Your task to perform on an android device: Go to privacy settings Image 0: 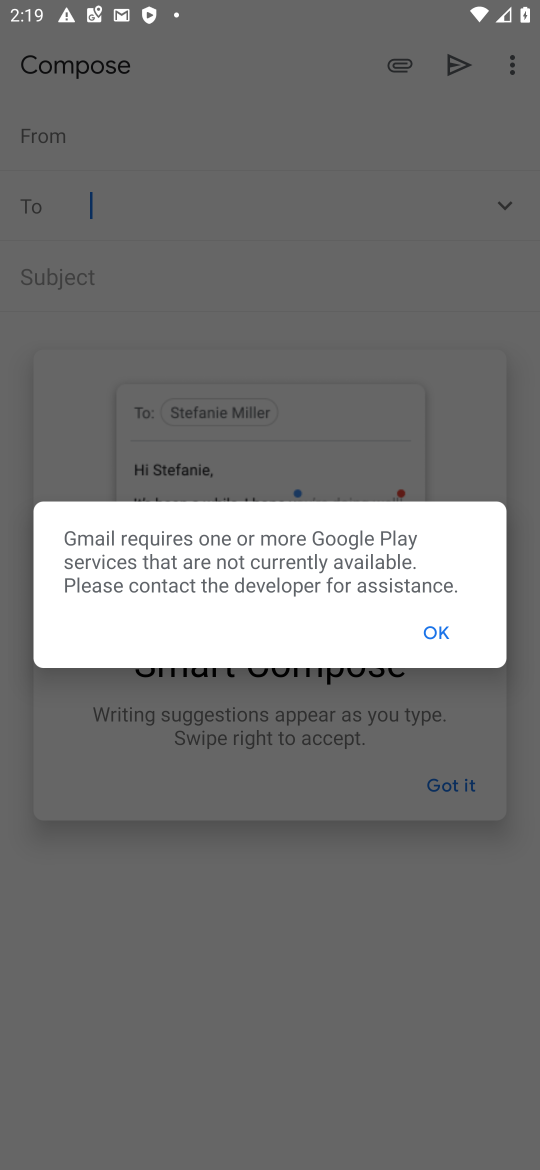
Step 0: click (416, 632)
Your task to perform on an android device: Go to privacy settings Image 1: 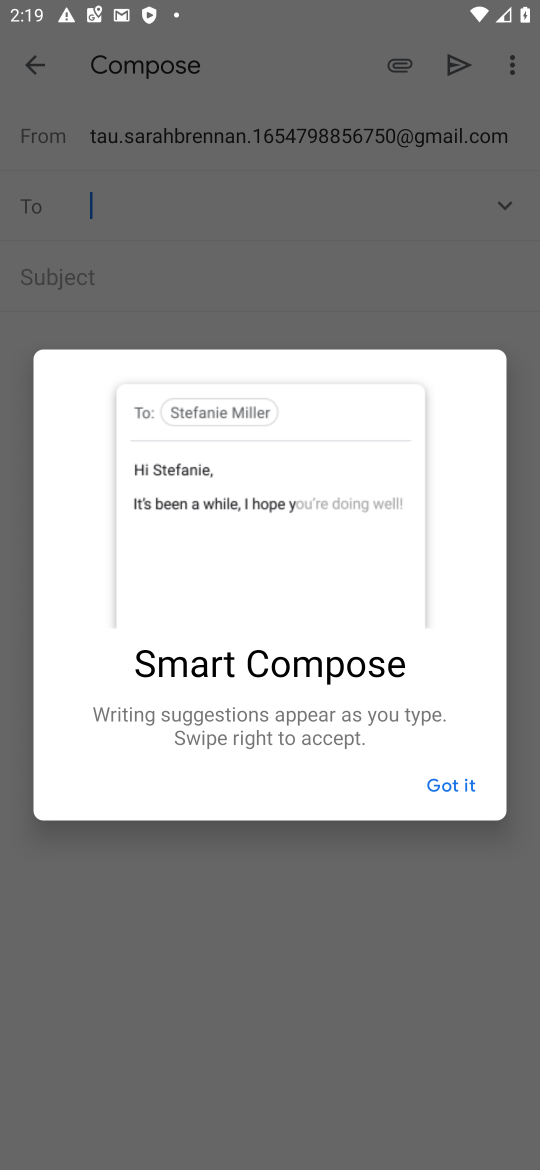
Step 1: press home button
Your task to perform on an android device: Go to privacy settings Image 2: 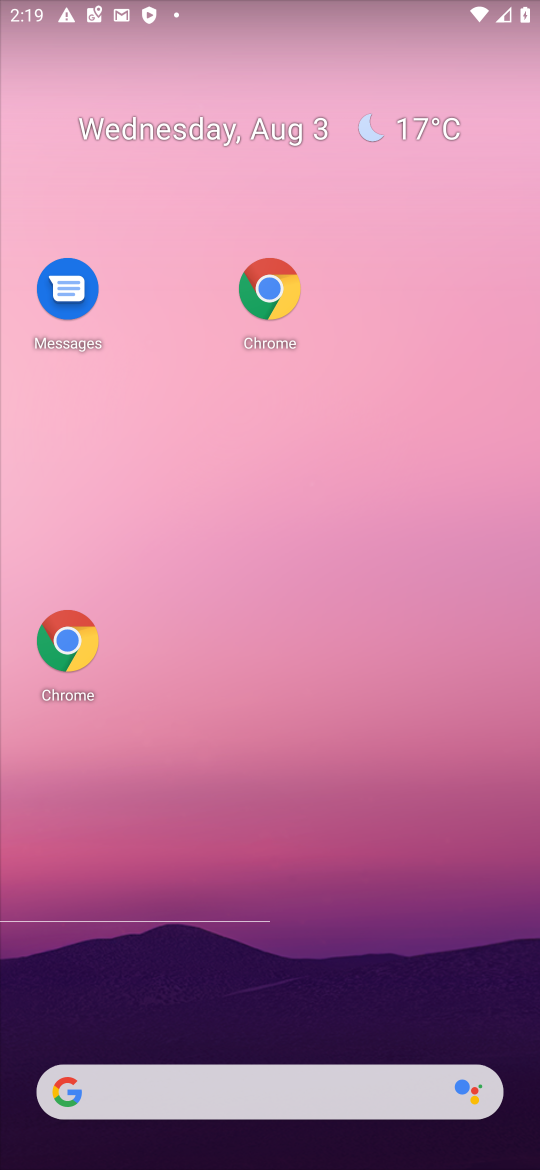
Step 2: drag from (324, 1047) to (315, 96)
Your task to perform on an android device: Go to privacy settings Image 3: 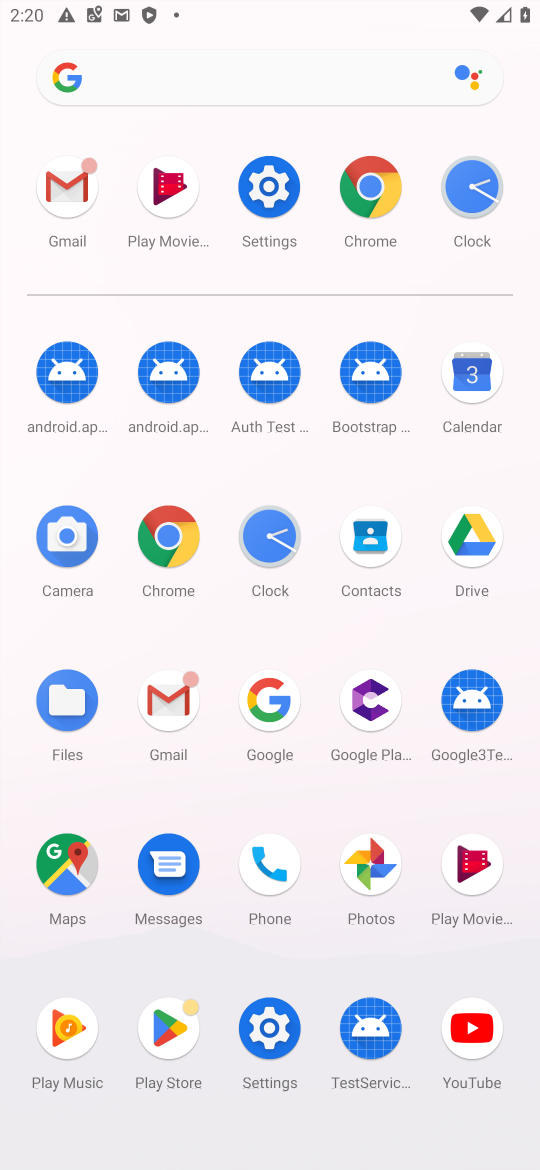
Step 3: click (267, 217)
Your task to perform on an android device: Go to privacy settings Image 4: 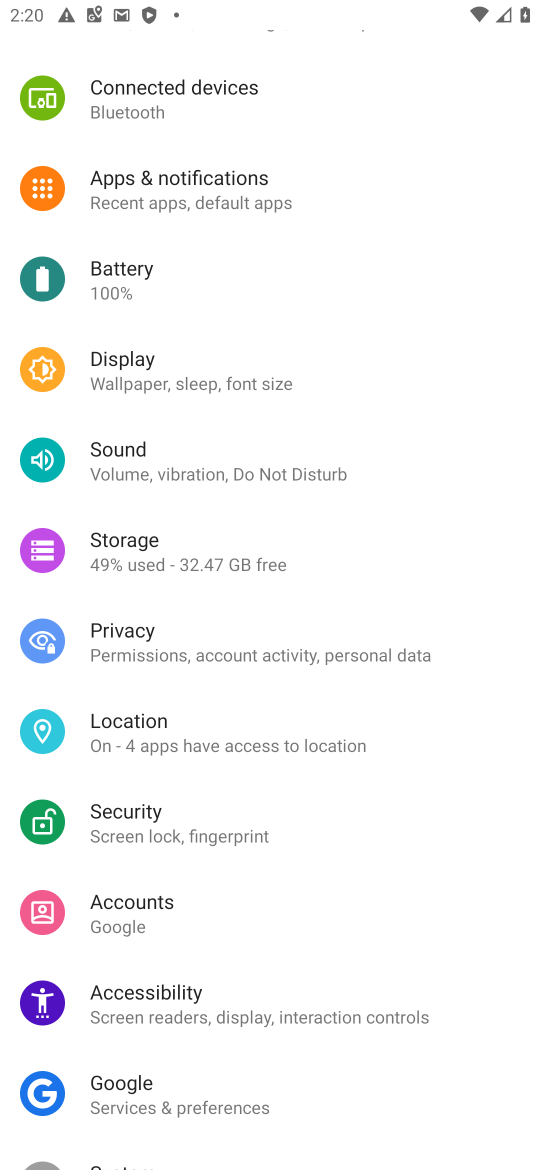
Step 4: click (195, 670)
Your task to perform on an android device: Go to privacy settings Image 5: 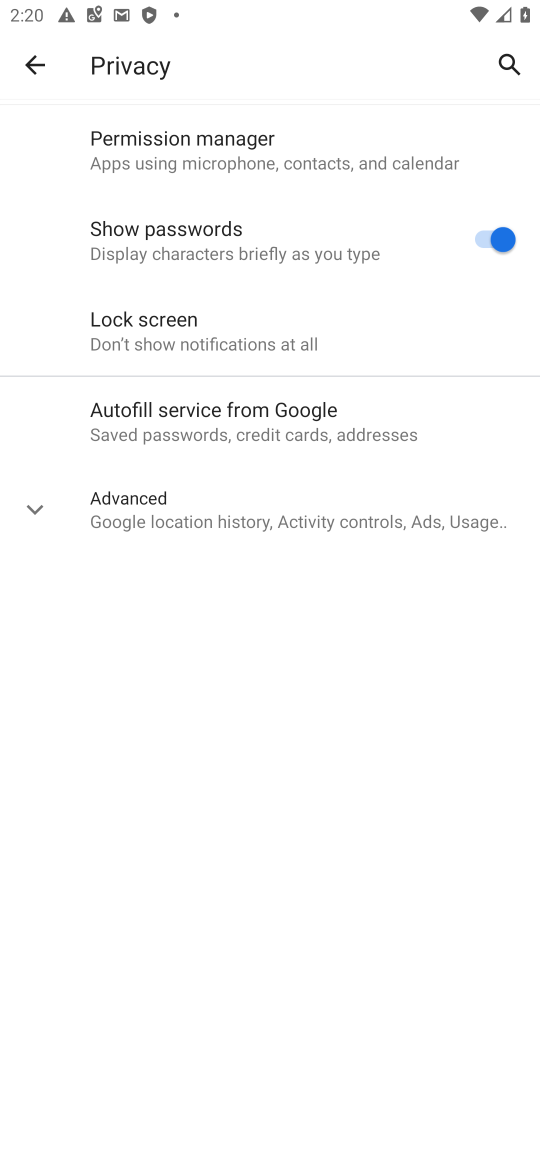
Step 5: task complete